Your task to perform on an android device: see creations saved in the google photos Image 0: 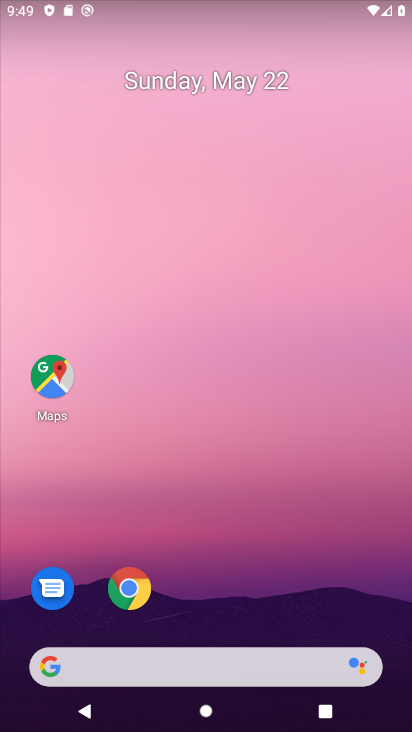
Step 0: drag from (247, 599) to (223, 154)
Your task to perform on an android device: see creations saved in the google photos Image 1: 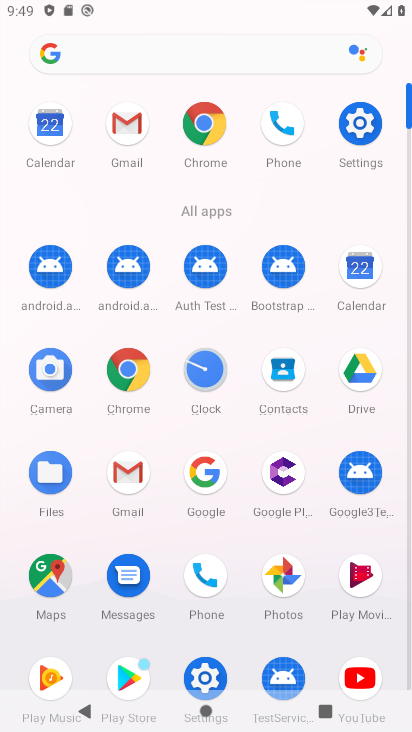
Step 1: click (283, 588)
Your task to perform on an android device: see creations saved in the google photos Image 2: 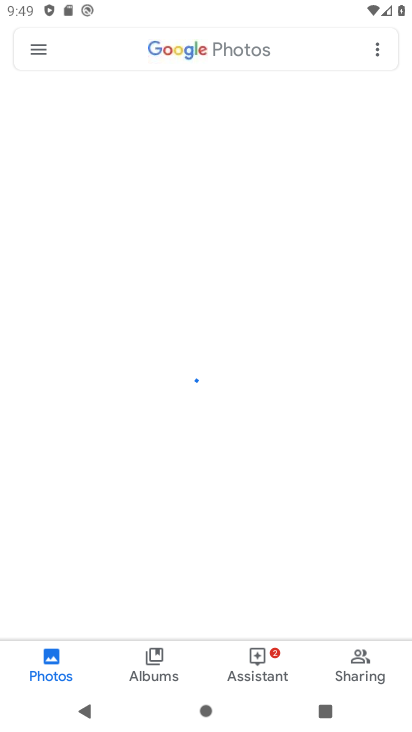
Step 2: click (150, 59)
Your task to perform on an android device: see creations saved in the google photos Image 3: 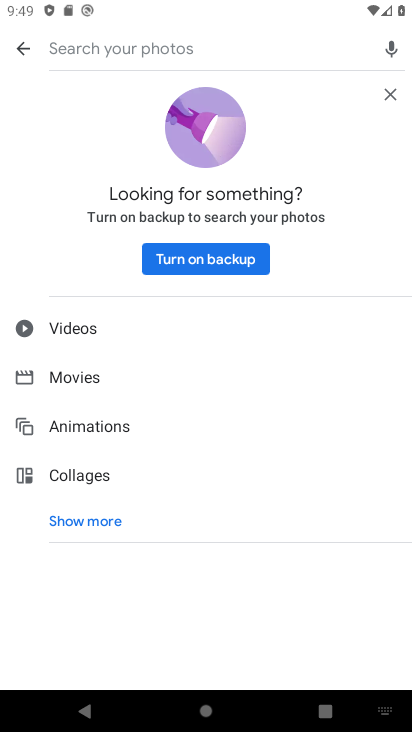
Step 3: click (102, 519)
Your task to perform on an android device: see creations saved in the google photos Image 4: 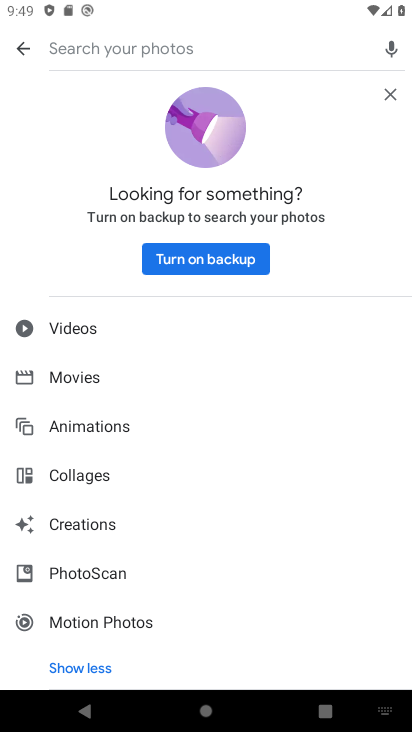
Step 4: click (102, 519)
Your task to perform on an android device: see creations saved in the google photos Image 5: 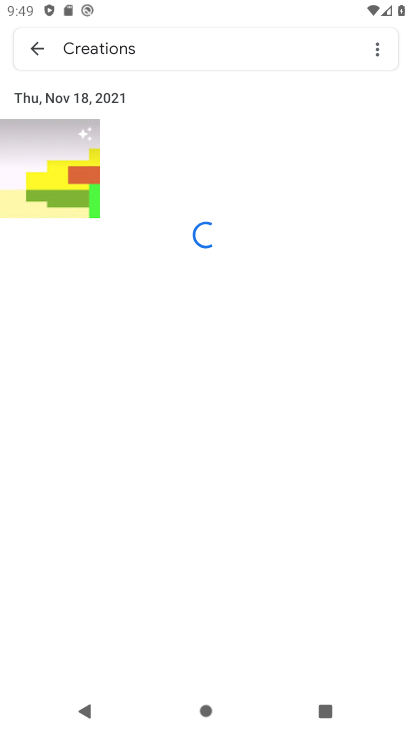
Step 5: task complete